Your task to perform on an android device: allow cookies in the chrome app Image 0: 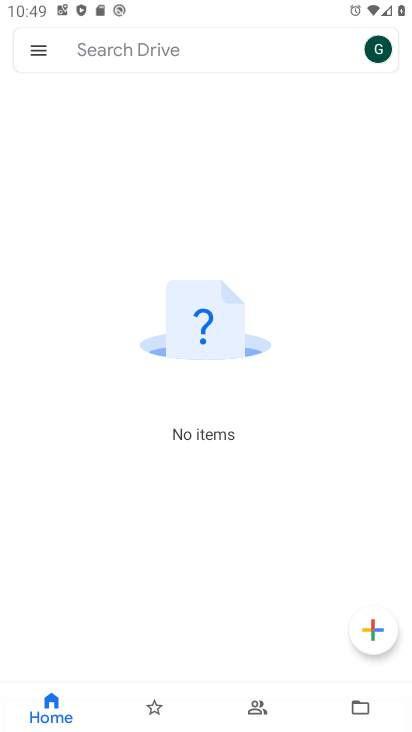
Step 0: press home button
Your task to perform on an android device: allow cookies in the chrome app Image 1: 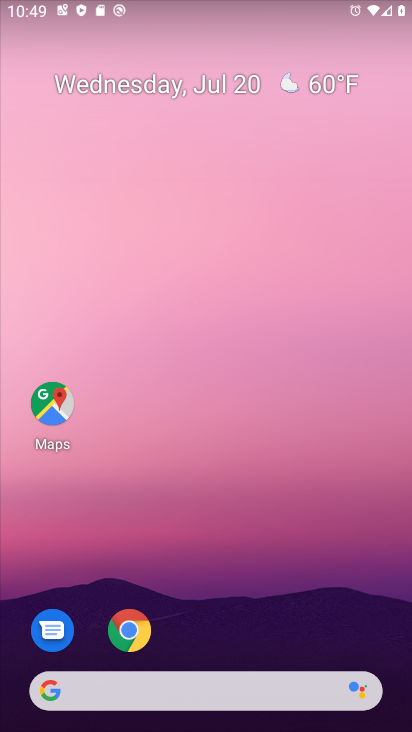
Step 1: click (132, 629)
Your task to perform on an android device: allow cookies in the chrome app Image 2: 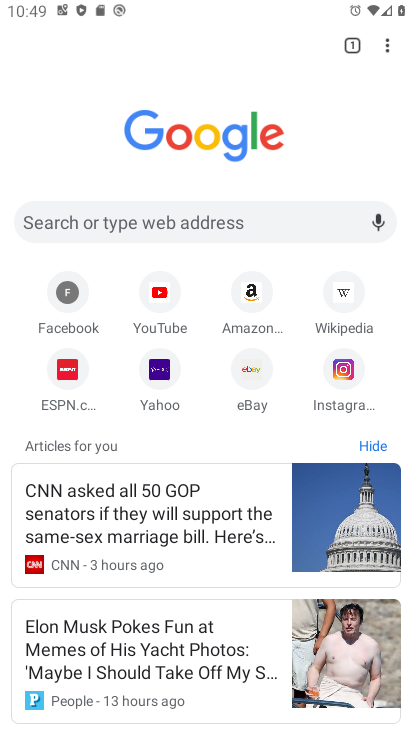
Step 2: click (388, 49)
Your task to perform on an android device: allow cookies in the chrome app Image 3: 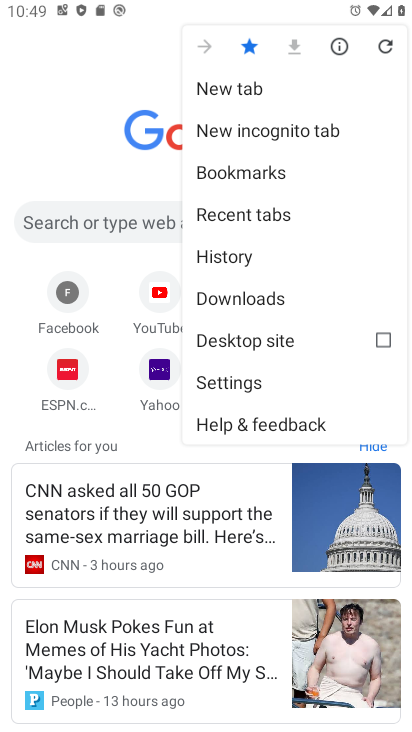
Step 3: click (242, 381)
Your task to perform on an android device: allow cookies in the chrome app Image 4: 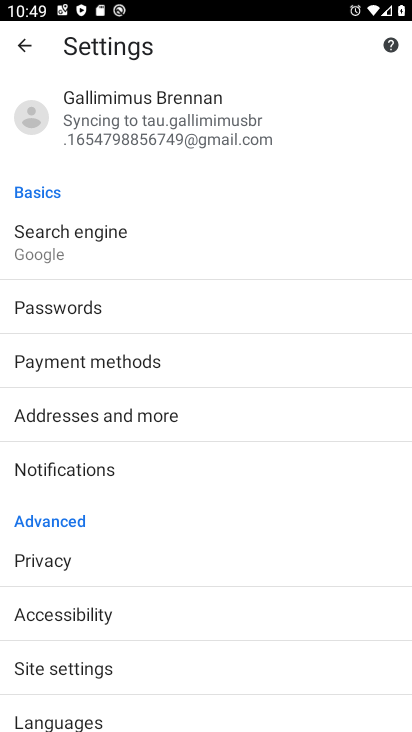
Step 4: click (57, 668)
Your task to perform on an android device: allow cookies in the chrome app Image 5: 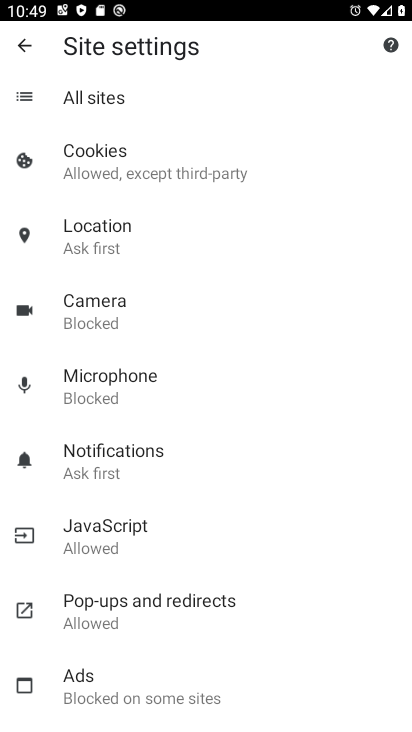
Step 5: click (104, 167)
Your task to perform on an android device: allow cookies in the chrome app Image 6: 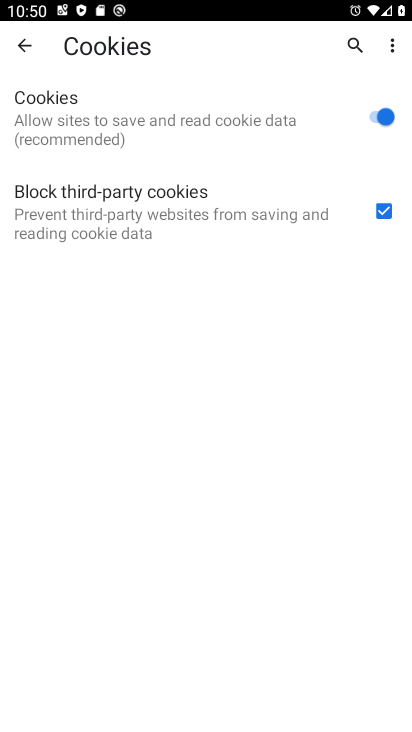
Step 6: task complete